Your task to perform on an android device: Open calendar and show me the second week of next month Image 0: 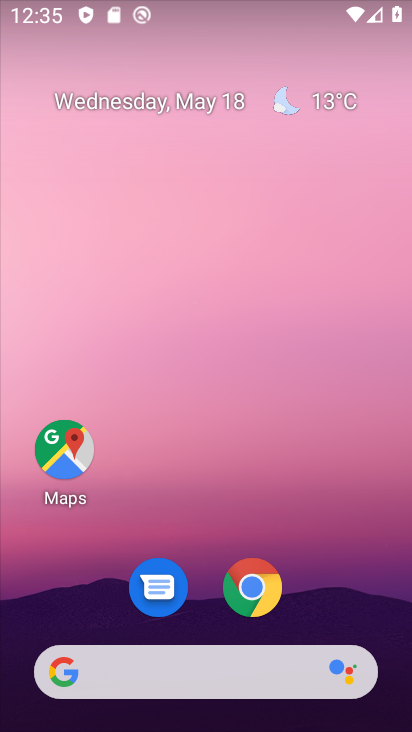
Step 0: drag from (229, 449) to (284, 127)
Your task to perform on an android device: Open calendar and show me the second week of next month Image 1: 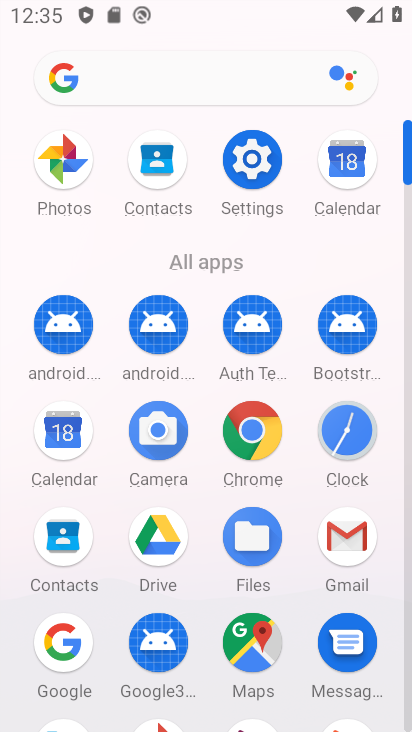
Step 1: click (60, 440)
Your task to perform on an android device: Open calendar and show me the second week of next month Image 2: 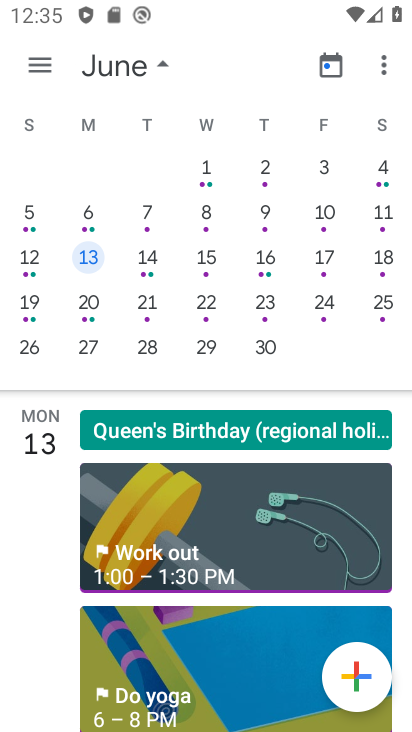
Step 2: click (77, 198)
Your task to perform on an android device: Open calendar and show me the second week of next month Image 3: 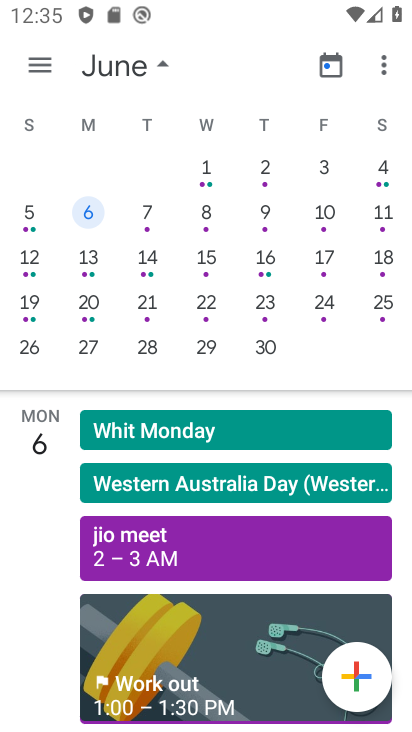
Step 3: task complete